Your task to perform on an android device: Set the phone to "Do not disturb". Image 0: 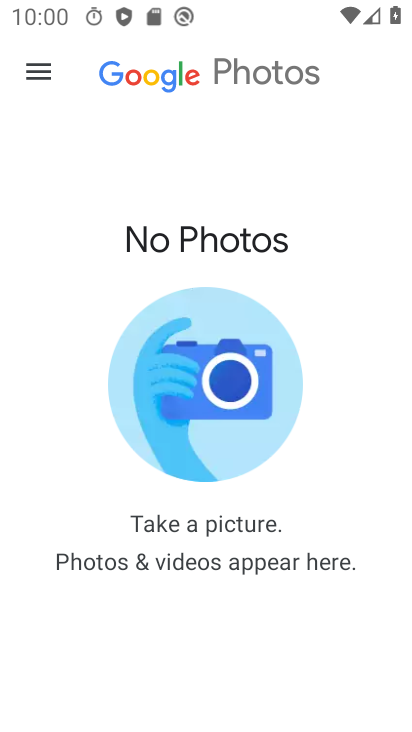
Step 0: press home button
Your task to perform on an android device: Set the phone to "Do not disturb". Image 1: 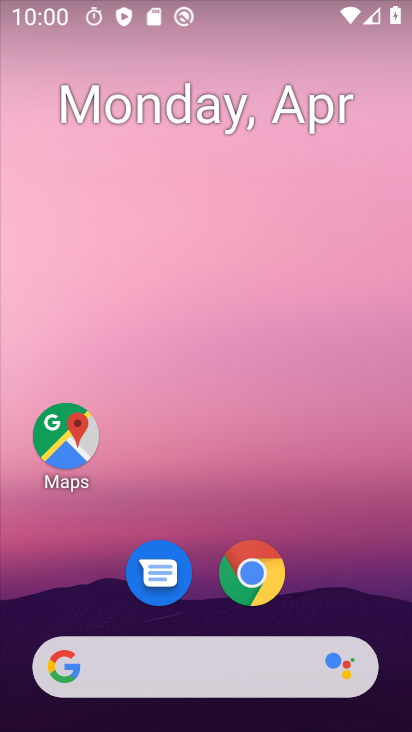
Step 1: drag from (249, 306) to (309, 2)
Your task to perform on an android device: Set the phone to "Do not disturb". Image 2: 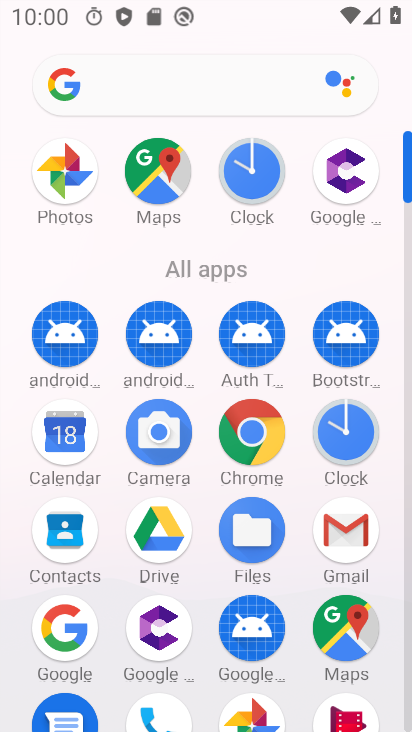
Step 2: drag from (392, 575) to (406, 287)
Your task to perform on an android device: Set the phone to "Do not disturb". Image 3: 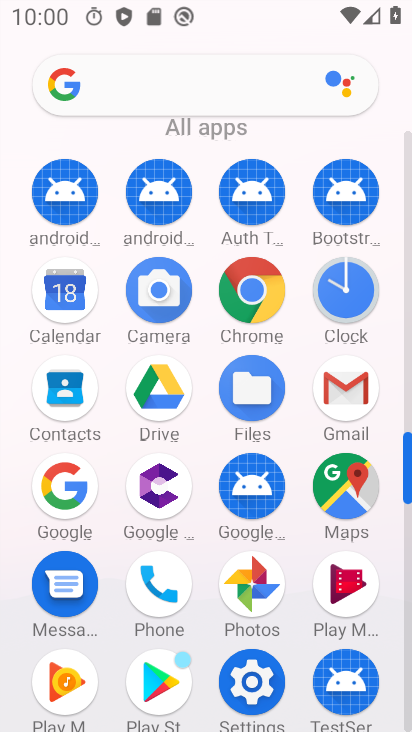
Step 3: click (246, 681)
Your task to perform on an android device: Set the phone to "Do not disturb". Image 4: 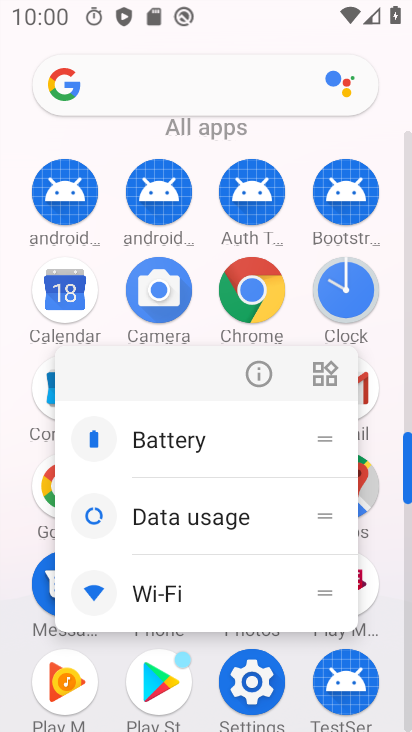
Step 4: click (237, 644)
Your task to perform on an android device: Set the phone to "Do not disturb". Image 5: 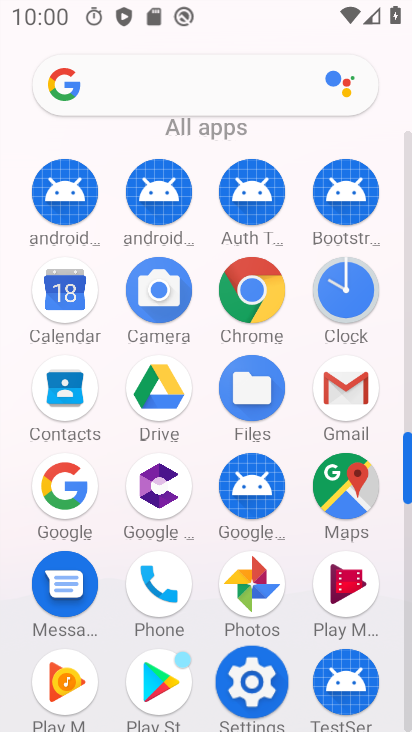
Step 5: click (253, 669)
Your task to perform on an android device: Set the phone to "Do not disturb". Image 6: 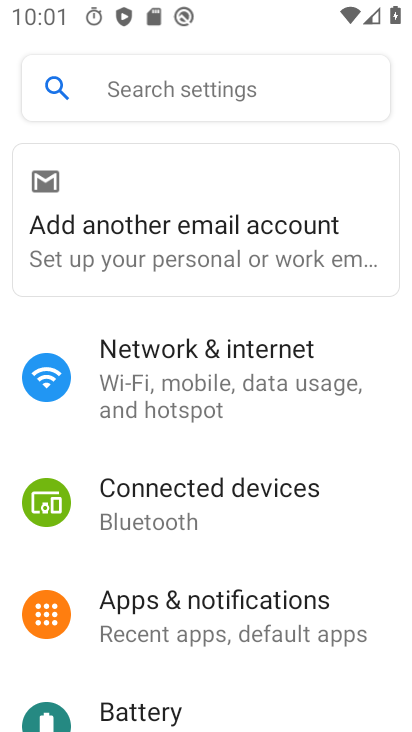
Step 6: drag from (107, 572) to (86, 160)
Your task to perform on an android device: Set the phone to "Do not disturb". Image 7: 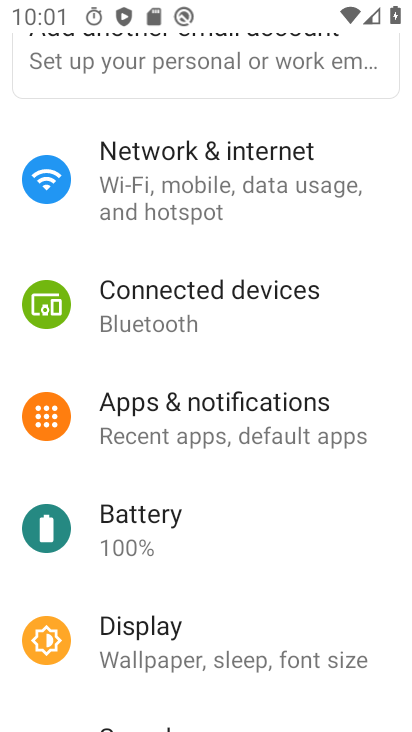
Step 7: drag from (168, 599) to (260, 82)
Your task to perform on an android device: Set the phone to "Do not disturb". Image 8: 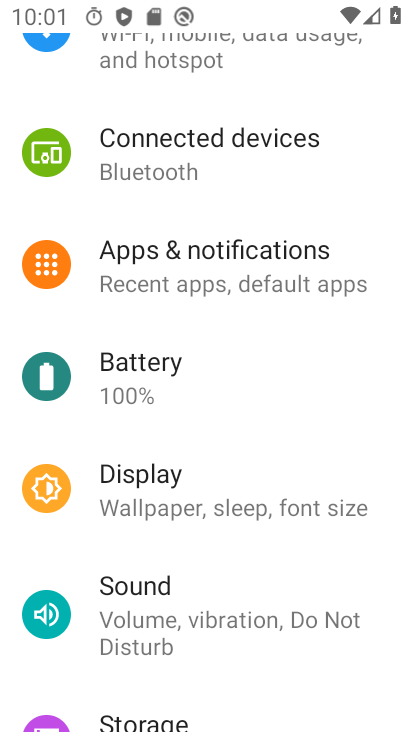
Step 8: drag from (243, 577) to (281, 267)
Your task to perform on an android device: Set the phone to "Do not disturb". Image 9: 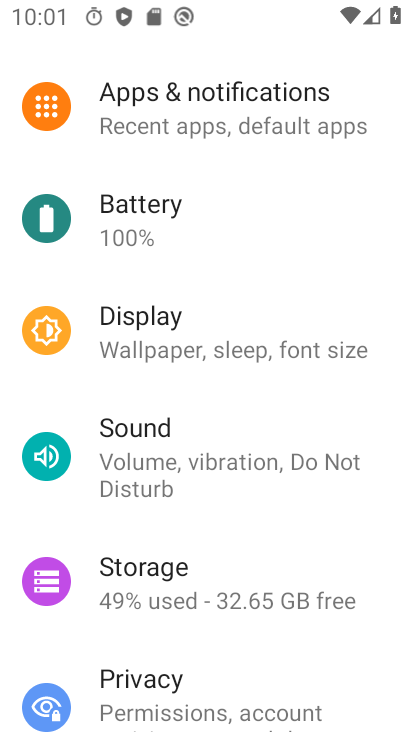
Step 9: click (284, 470)
Your task to perform on an android device: Set the phone to "Do not disturb". Image 10: 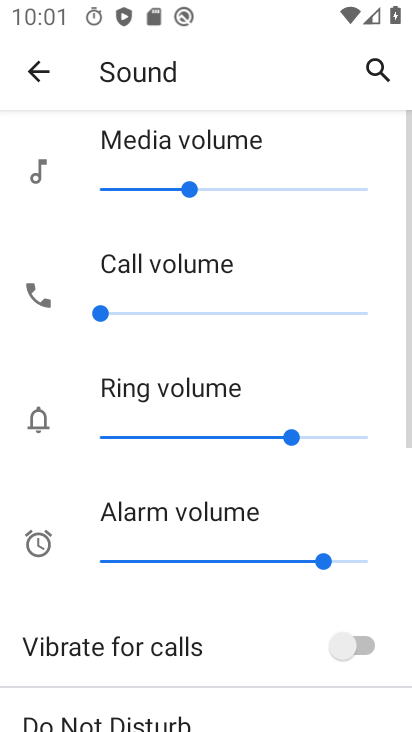
Step 10: drag from (275, 571) to (410, 161)
Your task to perform on an android device: Set the phone to "Do not disturb". Image 11: 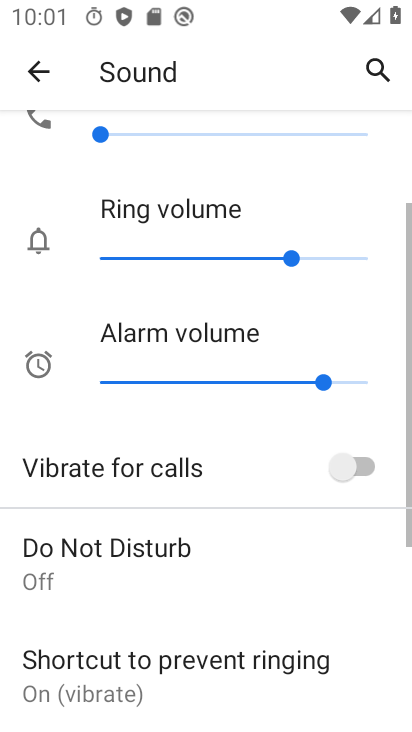
Step 11: drag from (279, 569) to (263, 299)
Your task to perform on an android device: Set the phone to "Do not disturb". Image 12: 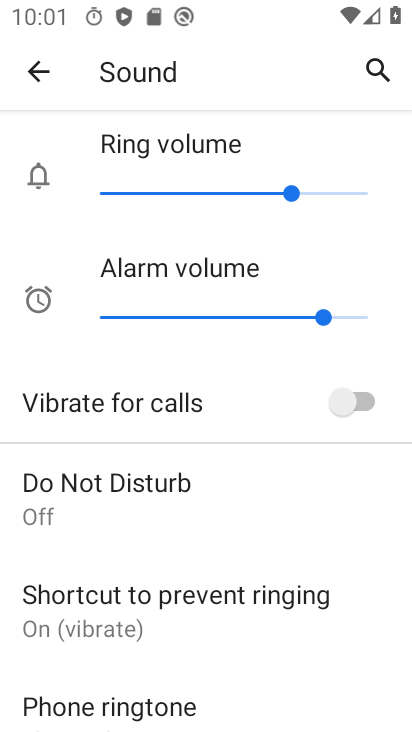
Step 12: click (55, 497)
Your task to perform on an android device: Set the phone to "Do not disturb". Image 13: 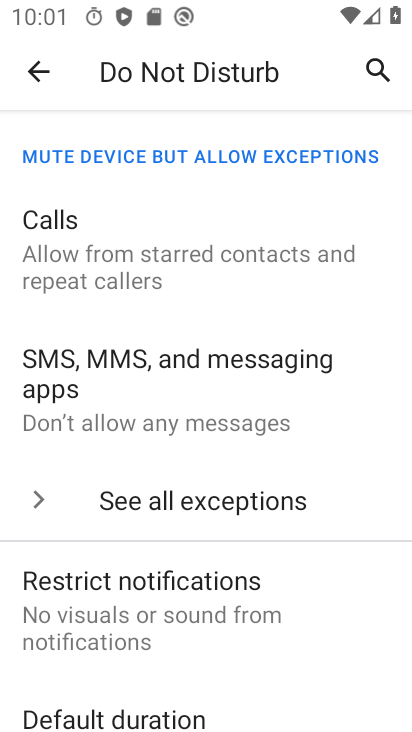
Step 13: drag from (272, 336) to (198, 595)
Your task to perform on an android device: Set the phone to "Do not disturb". Image 14: 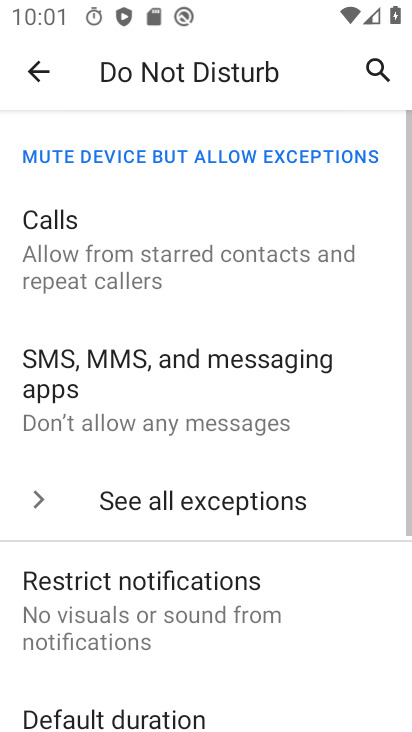
Step 14: drag from (187, 624) to (222, 194)
Your task to perform on an android device: Set the phone to "Do not disturb". Image 15: 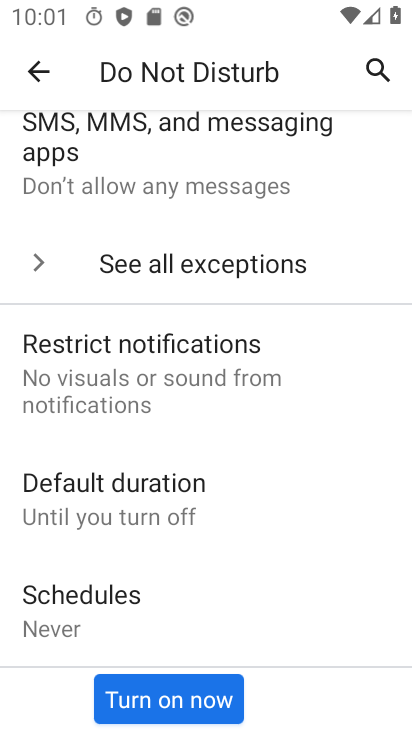
Step 15: drag from (196, 611) to (264, 312)
Your task to perform on an android device: Set the phone to "Do not disturb". Image 16: 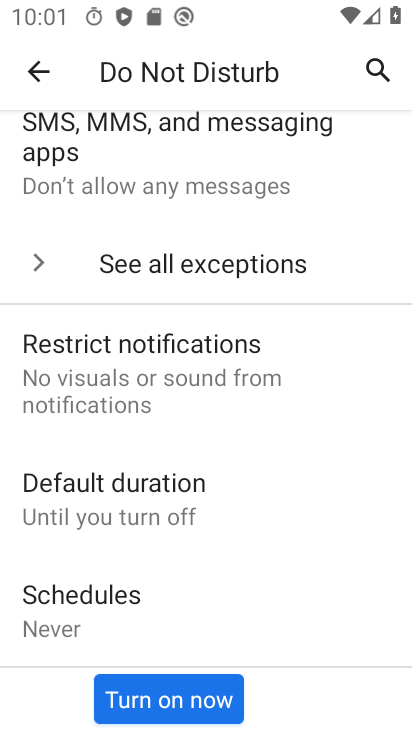
Step 16: click (149, 708)
Your task to perform on an android device: Set the phone to "Do not disturb". Image 17: 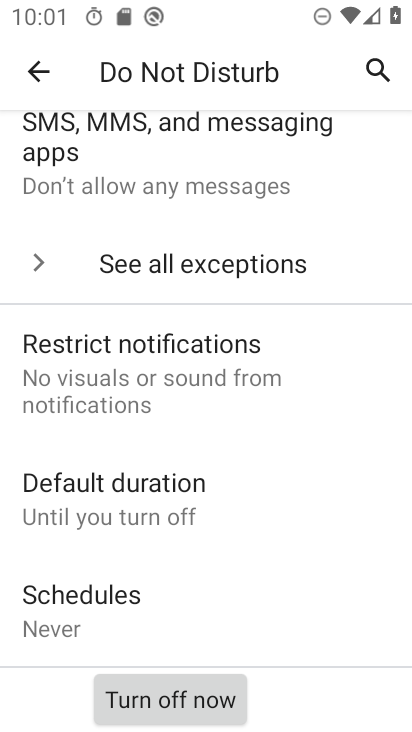
Step 17: task complete